Your task to perform on an android device: move an email to a new category in the gmail app Image 0: 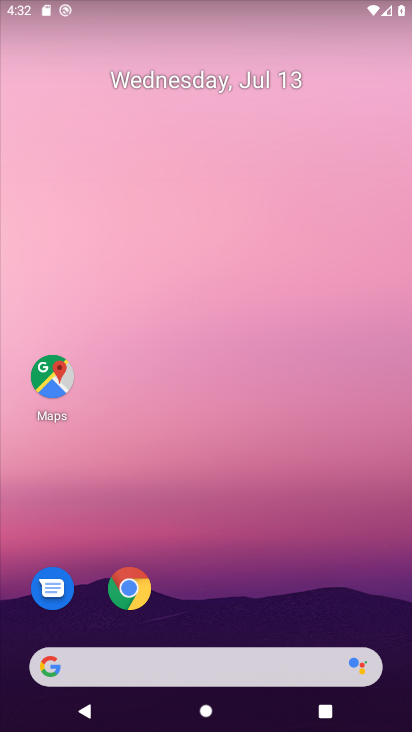
Step 0: drag from (193, 645) to (268, 161)
Your task to perform on an android device: move an email to a new category in the gmail app Image 1: 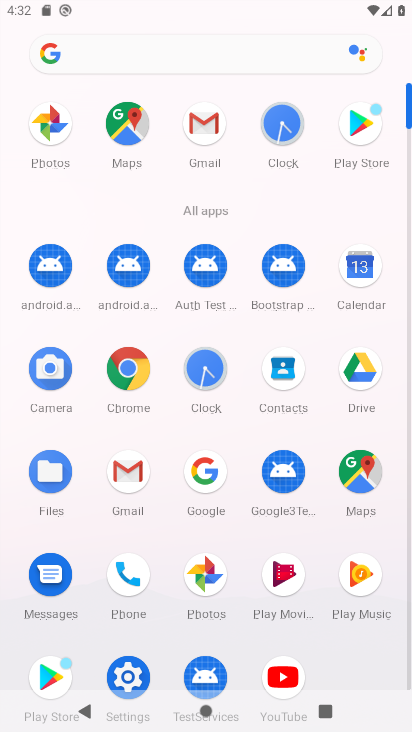
Step 1: click (130, 479)
Your task to perform on an android device: move an email to a new category in the gmail app Image 2: 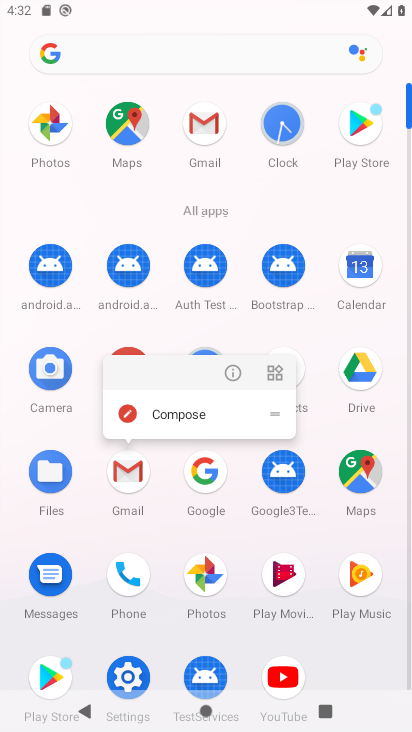
Step 2: click (129, 478)
Your task to perform on an android device: move an email to a new category in the gmail app Image 3: 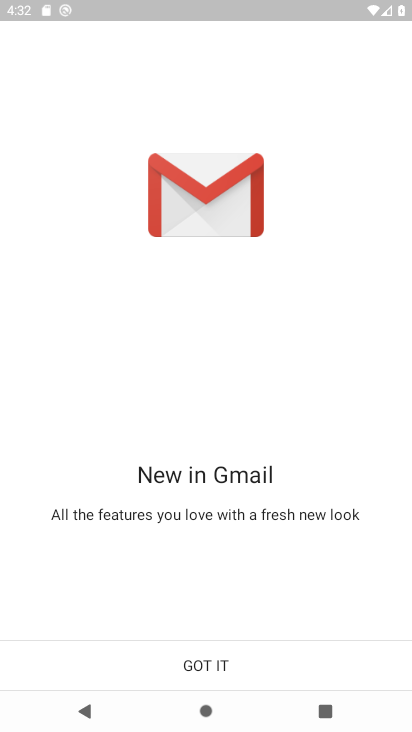
Step 3: click (198, 662)
Your task to perform on an android device: move an email to a new category in the gmail app Image 4: 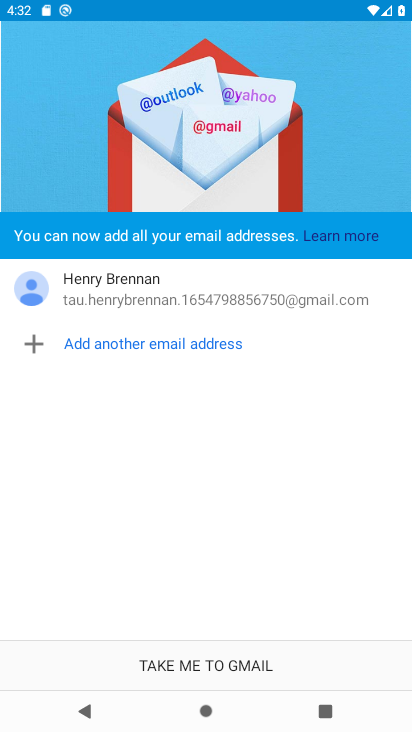
Step 4: click (202, 678)
Your task to perform on an android device: move an email to a new category in the gmail app Image 5: 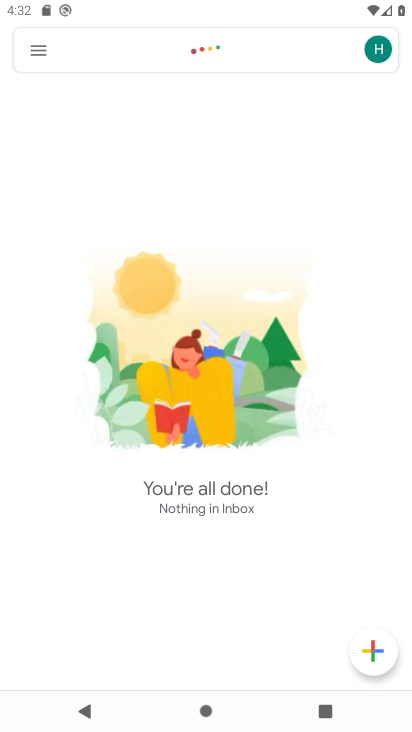
Step 5: click (54, 53)
Your task to perform on an android device: move an email to a new category in the gmail app Image 6: 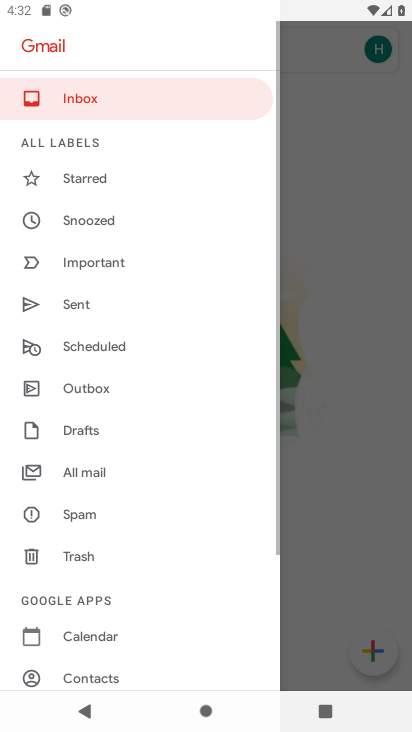
Step 6: click (103, 486)
Your task to perform on an android device: move an email to a new category in the gmail app Image 7: 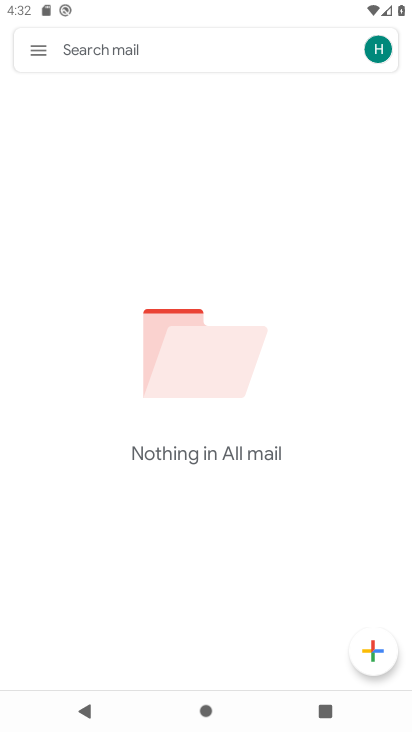
Step 7: task complete